Your task to perform on an android device: Search for sushi restaurants on Maps Image 0: 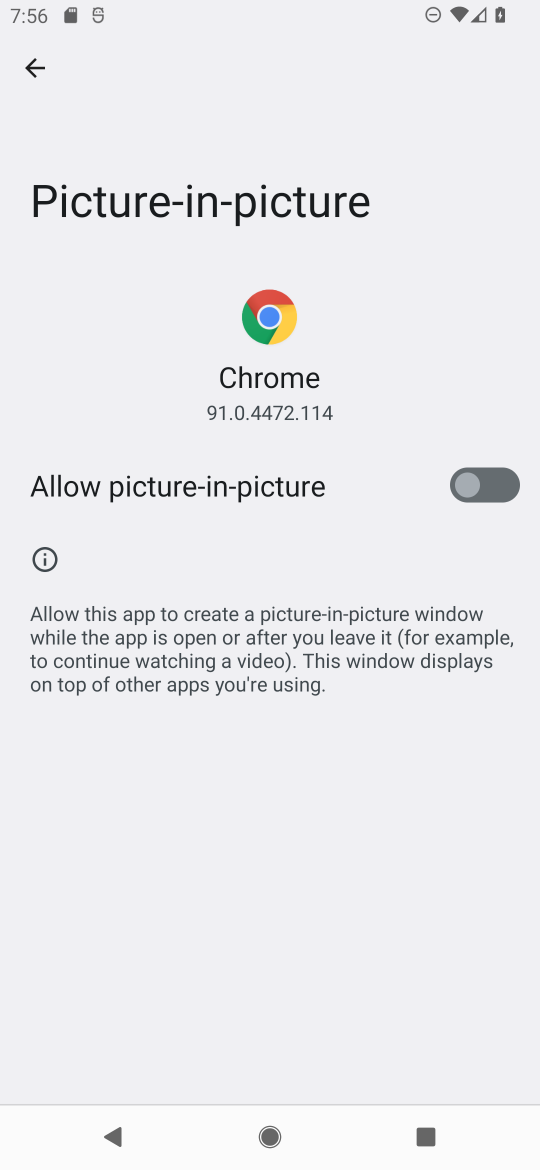
Step 0: press home button
Your task to perform on an android device: Search for sushi restaurants on Maps Image 1: 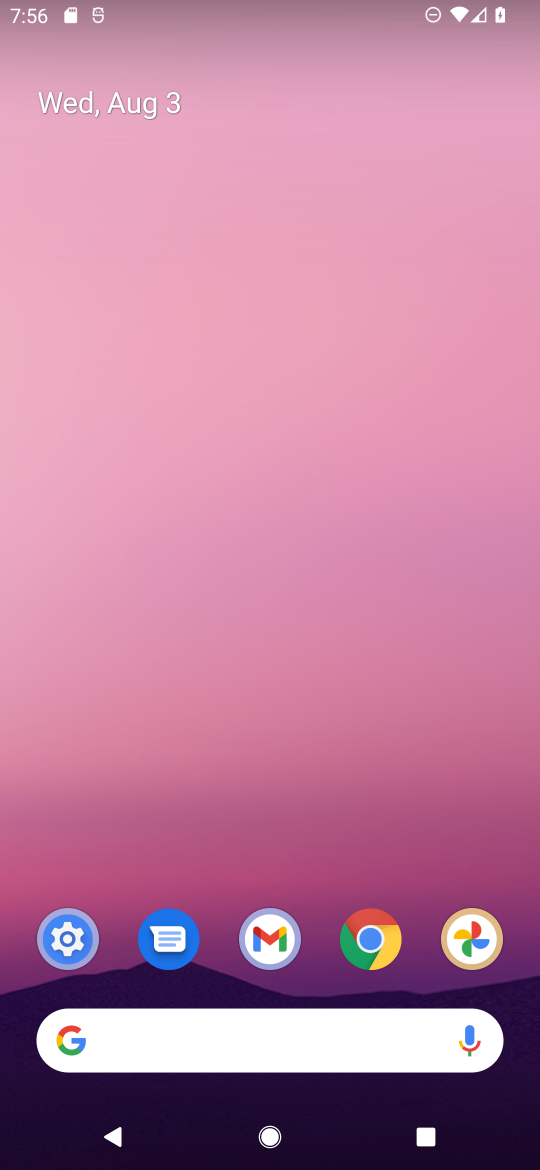
Step 1: drag from (320, 894) to (456, 62)
Your task to perform on an android device: Search for sushi restaurants on Maps Image 2: 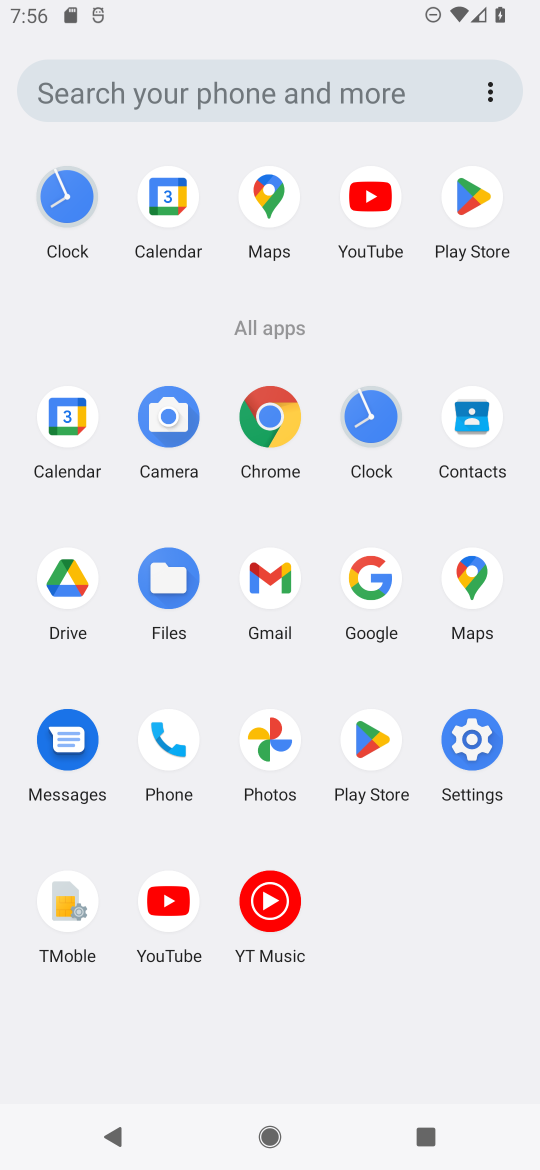
Step 2: click (274, 204)
Your task to perform on an android device: Search for sushi restaurants on Maps Image 3: 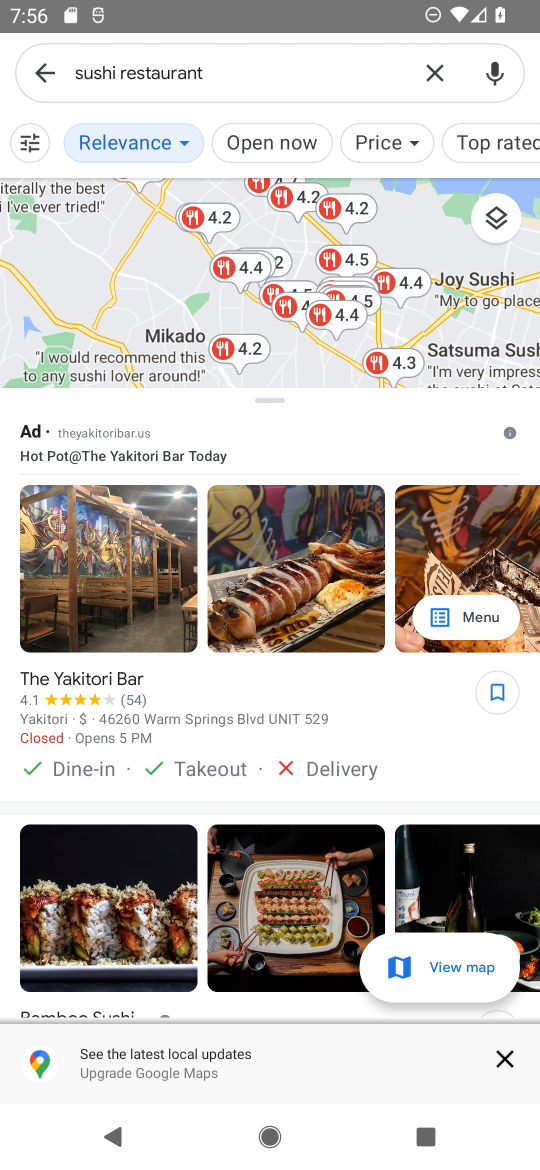
Step 3: task complete